Your task to perform on an android device: open sync settings in chrome Image 0: 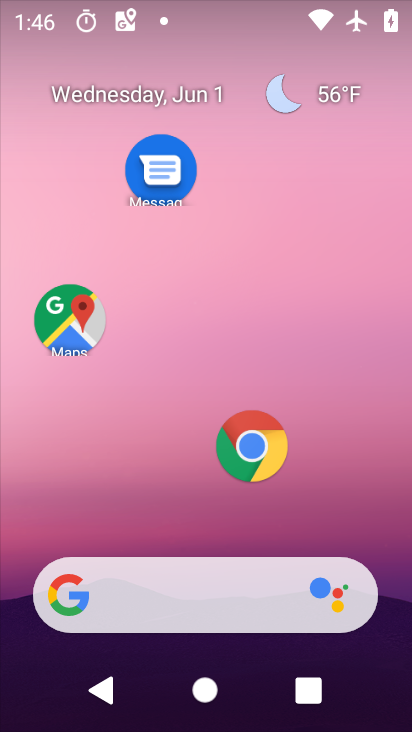
Step 0: drag from (171, 387) to (253, 94)
Your task to perform on an android device: open sync settings in chrome Image 1: 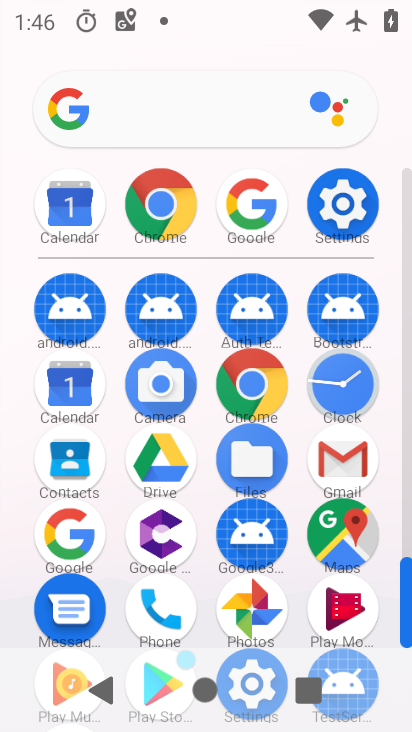
Step 1: drag from (208, 259) to (229, 8)
Your task to perform on an android device: open sync settings in chrome Image 2: 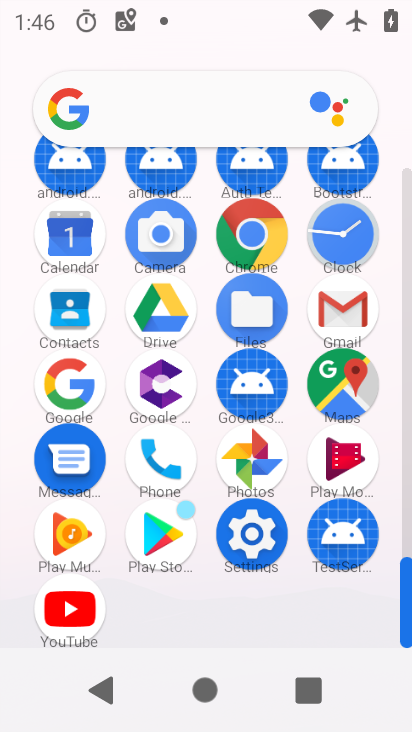
Step 2: click (247, 254)
Your task to perform on an android device: open sync settings in chrome Image 3: 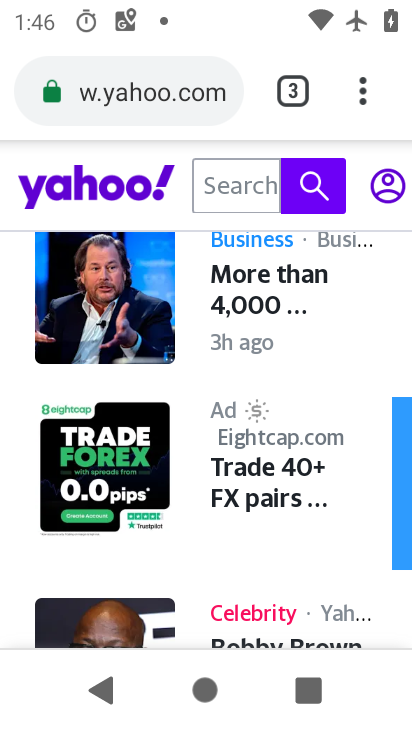
Step 3: click (369, 94)
Your task to perform on an android device: open sync settings in chrome Image 4: 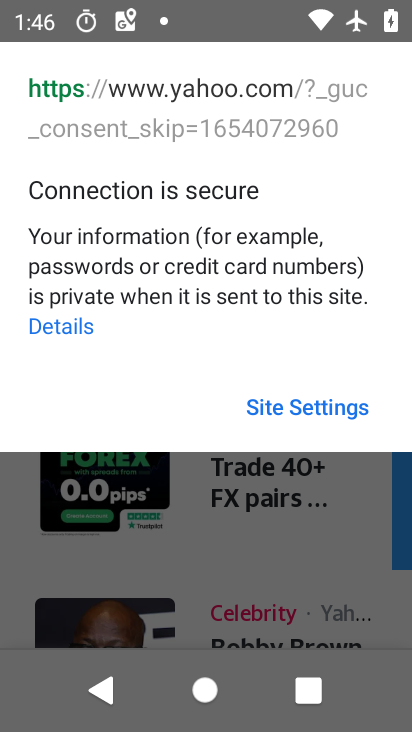
Step 4: press back button
Your task to perform on an android device: open sync settings in chrome Image 5: 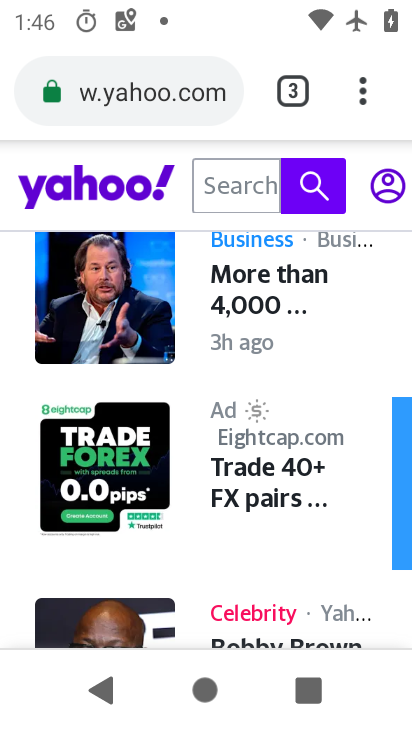
Step 5: click (366, 89)
Your task to perform on an android device: open sync settings in chrome Image 6: 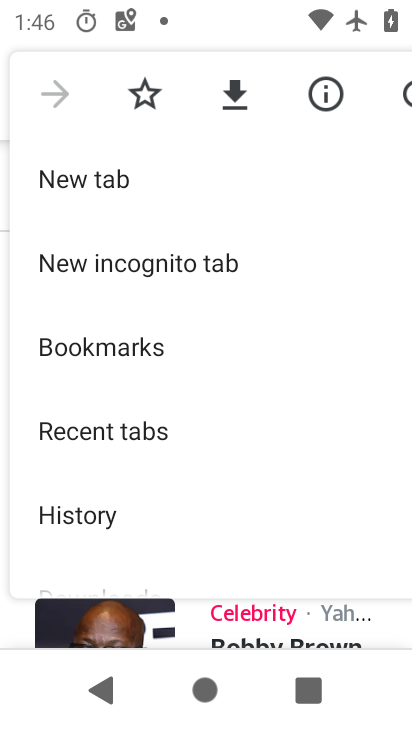
Step 6: drag from (215, 445) to (197, 155)
Your task to perform on an android device: open sync settings in chrome Image 7: 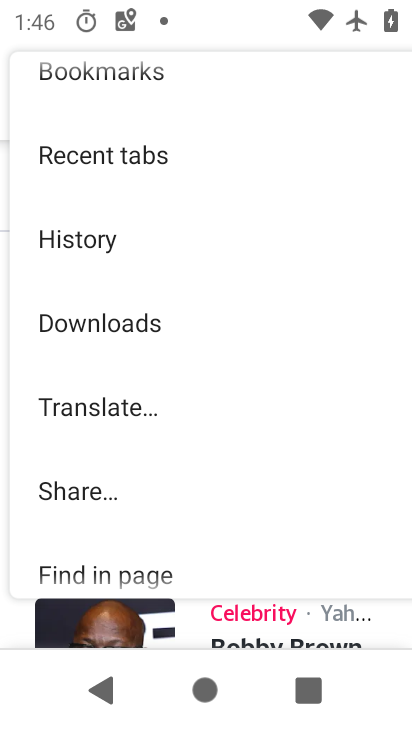
Step 7: drag from (194, 483) to (224, 137)
Your task to perform on an android device: open sync settings in chrome Image 8: 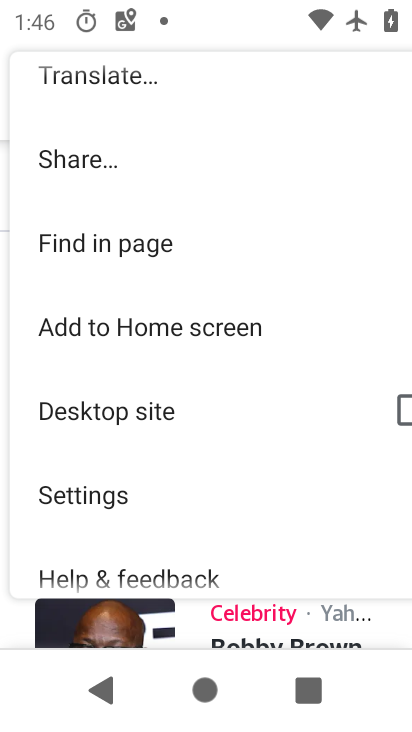
Step 8: click (122, 502)
Your task to perform on an android device: open sync settings in chrome Image 9: 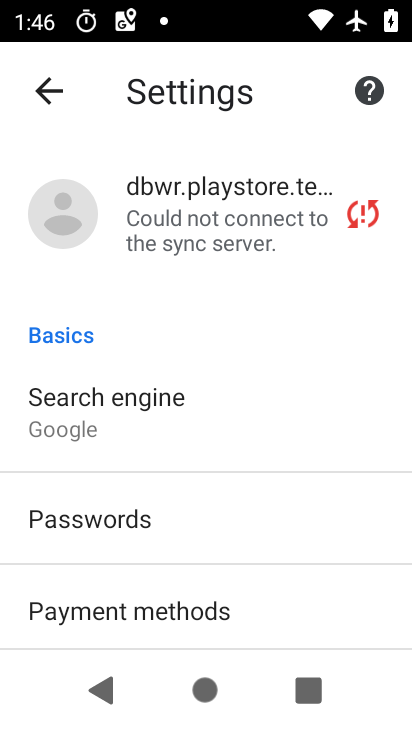
Step 9: click (234, 232)
Your task to perform on an android device: open sync settings in chrome Image 10: 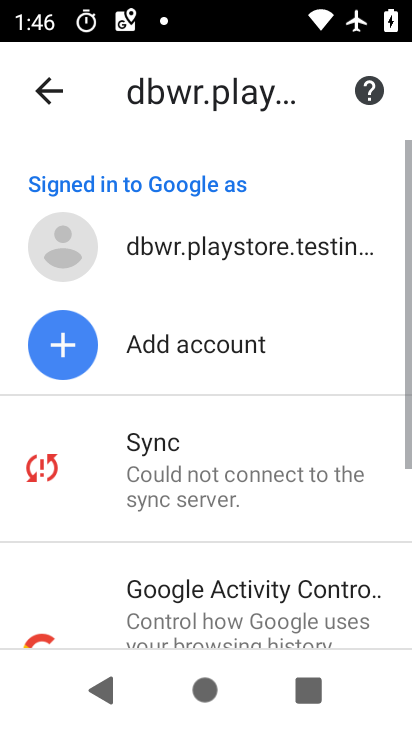
Step 10: click (213, 458)
Your task to perform on an android device: open sync settings in chrome Image 11: 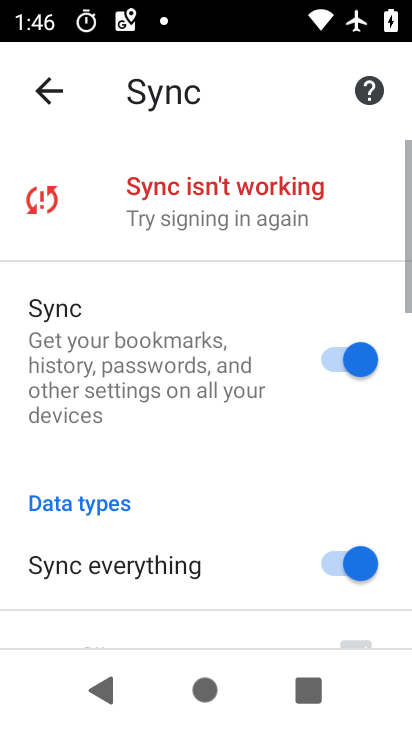
Step 11: click (182, 256)
Your task to perform on an android device: open sync settings in chrome Image 12: 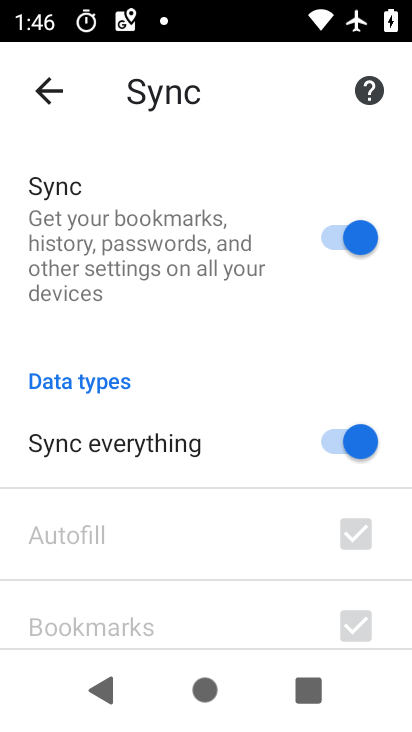
Step 12: task complete